Your task to perform on an android device: empty trash in google photos Image 0: 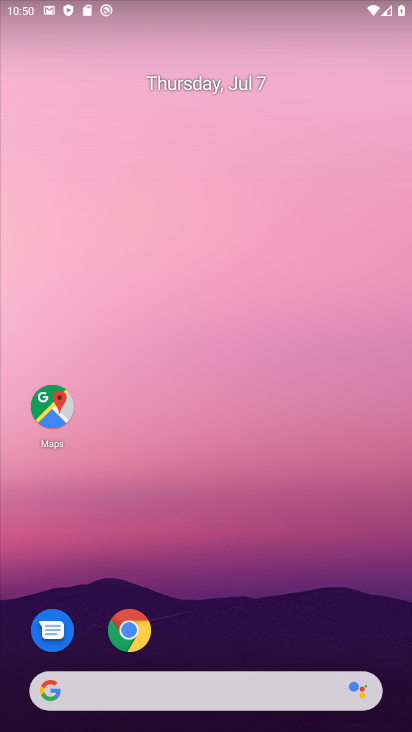
Step 0: drag from (238, 653) to (333, 64)
Your task to perform on an android device: empty trash in google photos Image 1: 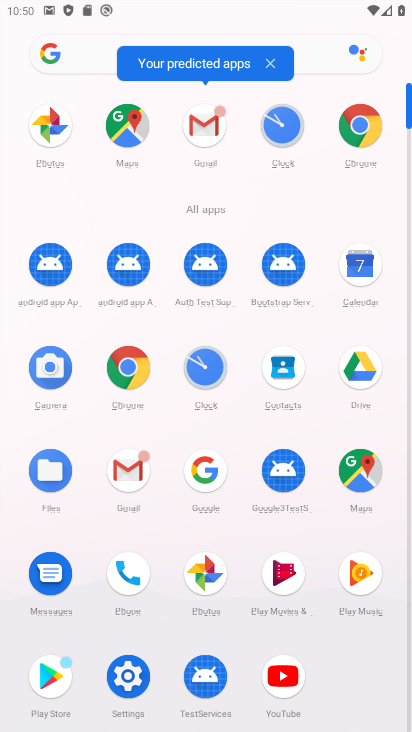
Step 1: click (202, 566)
Your task to perform on an android device: empty trash in google photos Image 2: 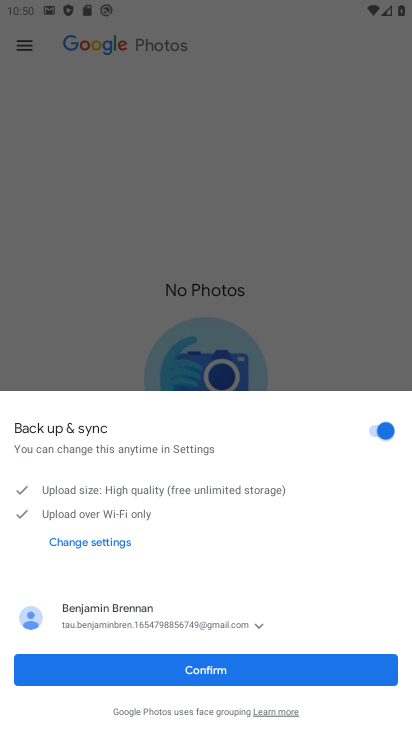
Step 2: click (186, 669)
Your task to perform on an android device: empty trash in google photos Image 3: 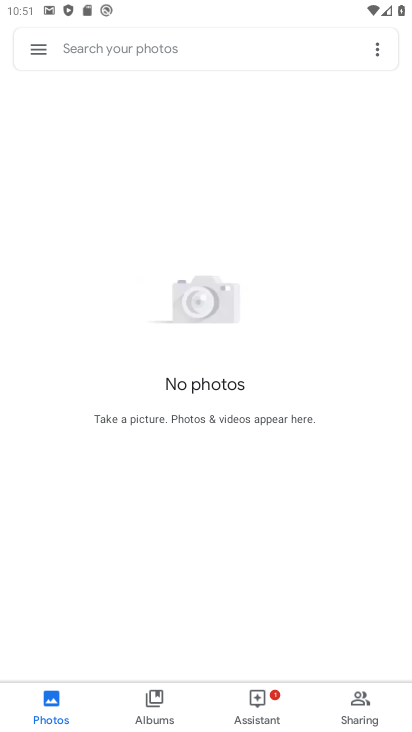
Step 3: click (41, 58)
Your task to perform on an android device: empty trash in google photos Image 4: 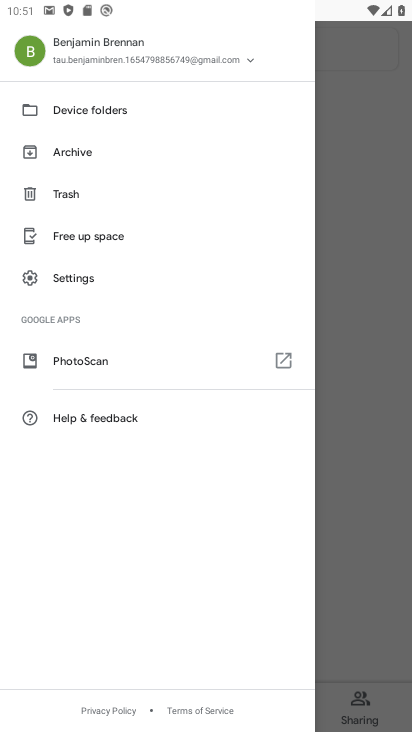
Step 4: click (62, 198)
Your task to perform on an android device: empty trash in google photos Image 5: 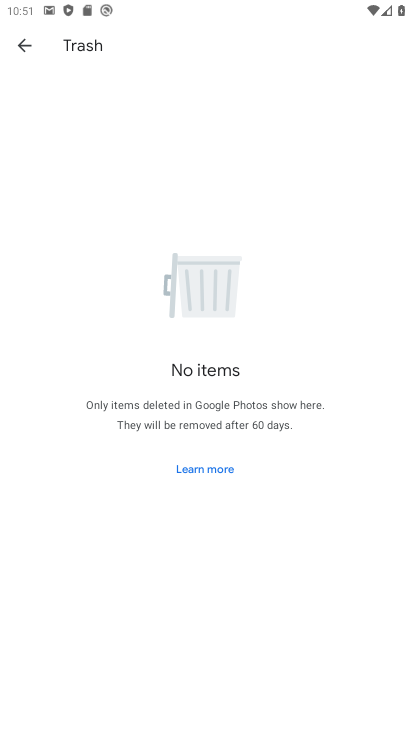
Step 5: task complete